Your task to perform on an android device: star an email in the gmail app Image 0: 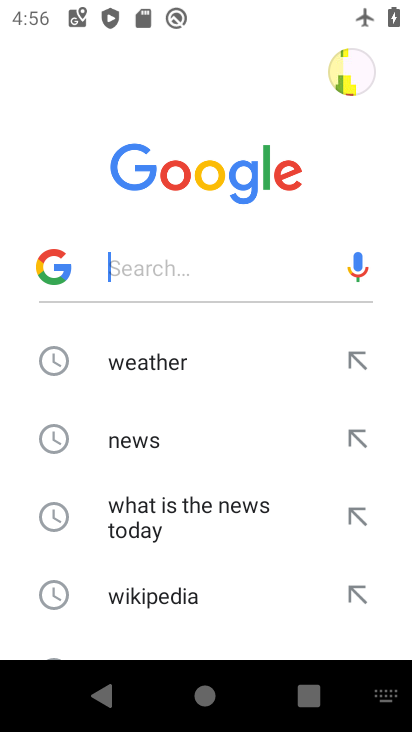
Step 0: press home button
Your task to perform on an android device: star an email in the gmail app Image 1: 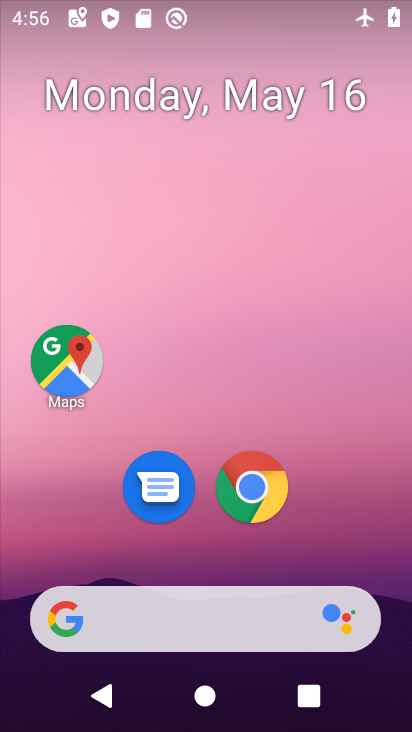
Step 1: drag from (397, 626) to (353, 162)
Your task to perform on an android device: star an email in the gmail app Image 2: 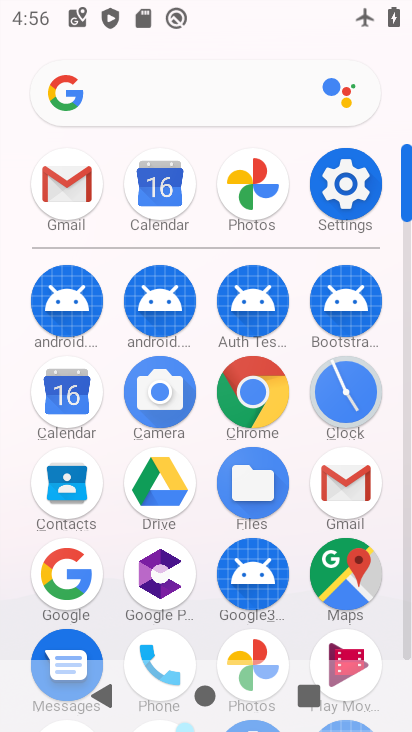
Step 2: click (405, 644)
Your task to perform on an android device: star an email in the gmail app Image 3: 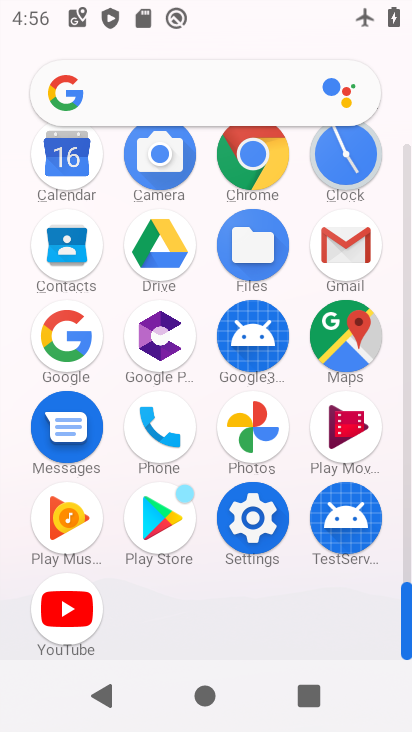
Step 3: click (347, 241)
Your task to perform on an android device: star an email in the gmail app Image 4: 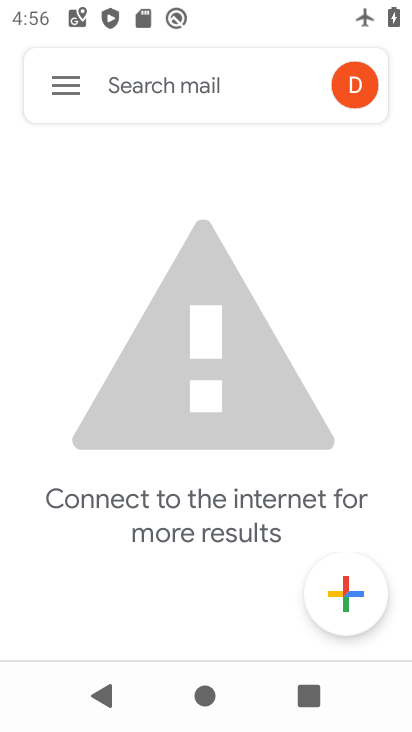
Step 4: click (60, 84)
Your task to perform on an android device: star an email in the gmail app Image 5: 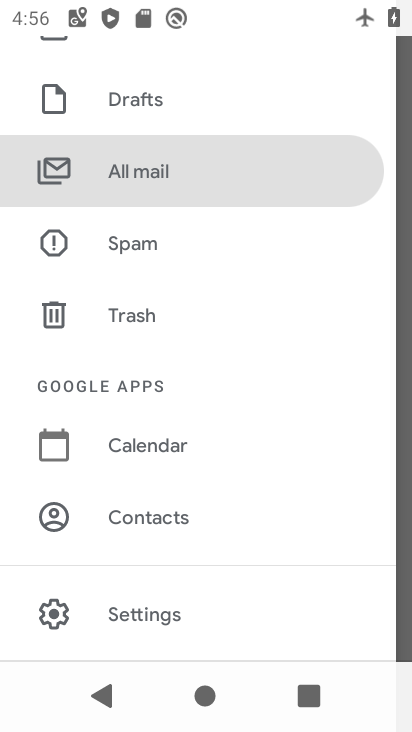
Step 5: click (157, 162)
Your task to perform on an android device: star an email in the gmail app Image 6: 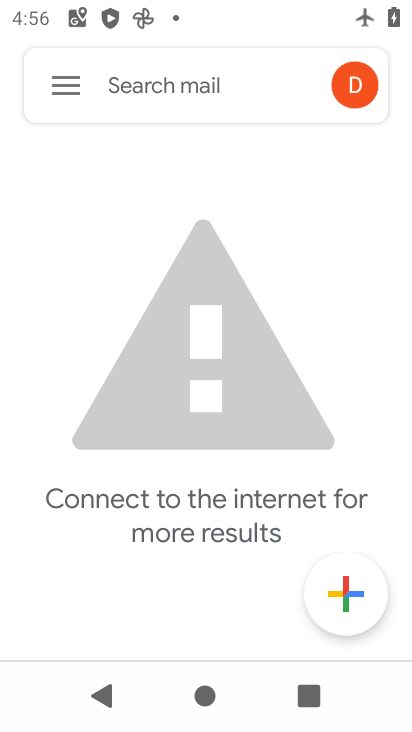
Step 6: task complete